Your task to perform on an android device: Check the weather Image 0: 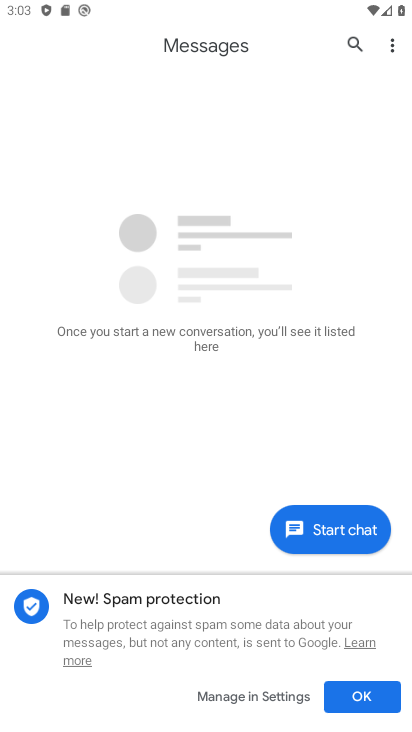
Step 0: press home button
Your task to perform on an android device: Check the weather Image 1: 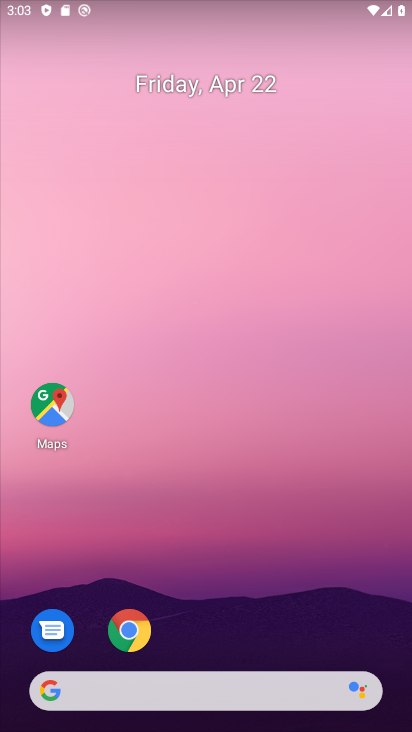
Step 1: click (165, 679)
Your task to perform on an android device: Check the weather Image 2: 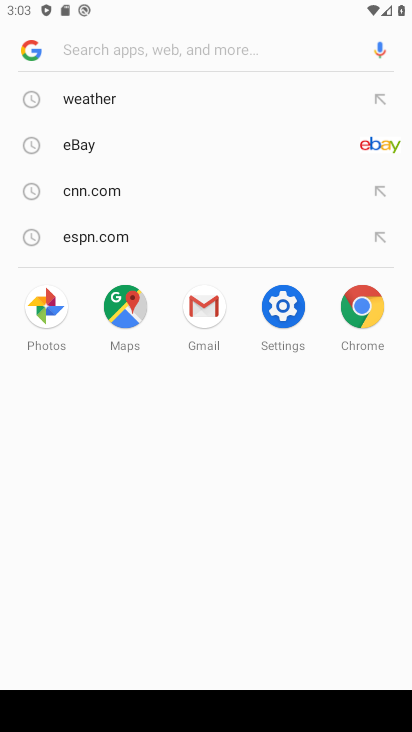
Step 2: click (104, 109)
Your task to perform on an android device: Check the weather Image 3: 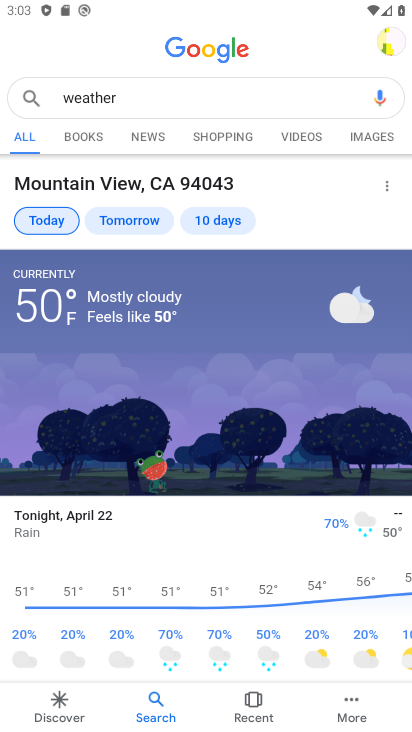
Step 3: task complete